Your task to perform on an android device: open device folders in google photos Image 0: 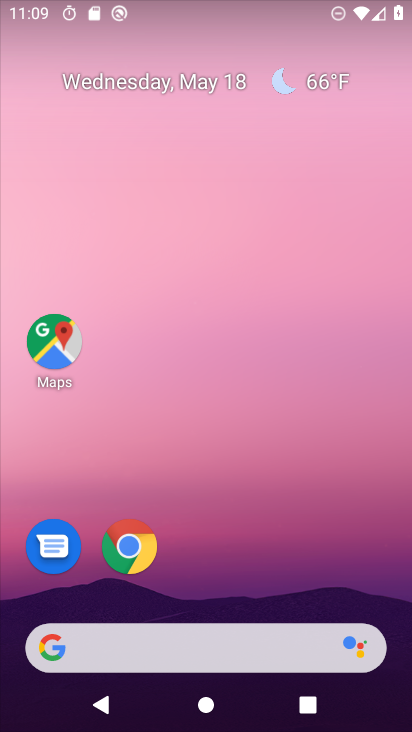
Step 0: drag from (227, 618) to (327, 82)
Your task to perform on an android device: open device folders in google photos Image 1: 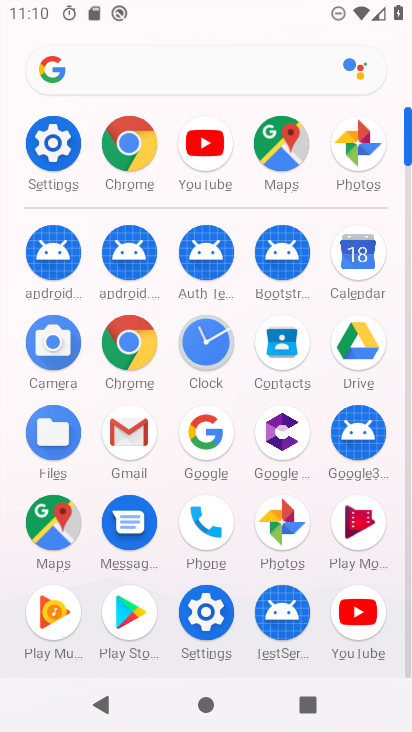
Step 1: click (344, 149)
Your task to perform on an android device: open device folders in google photos Image 2: 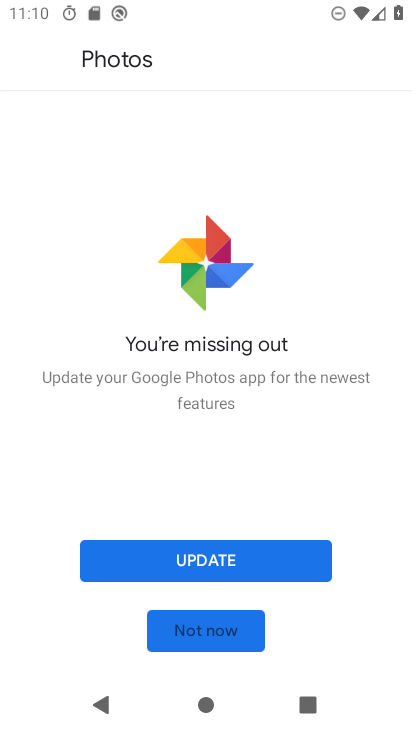
Step 2: click (201, 624)
Your task to perform on an android device: open device folders in google photos Image 3: 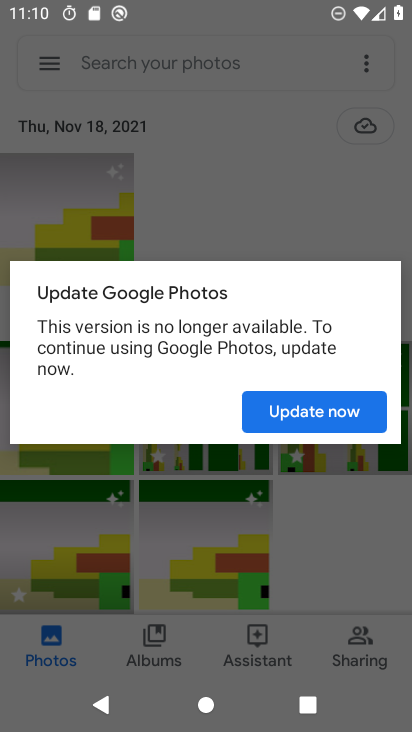
Step 3: click (289, 415)
Your task to perform on an android device: open device folders in google photos Image 4: 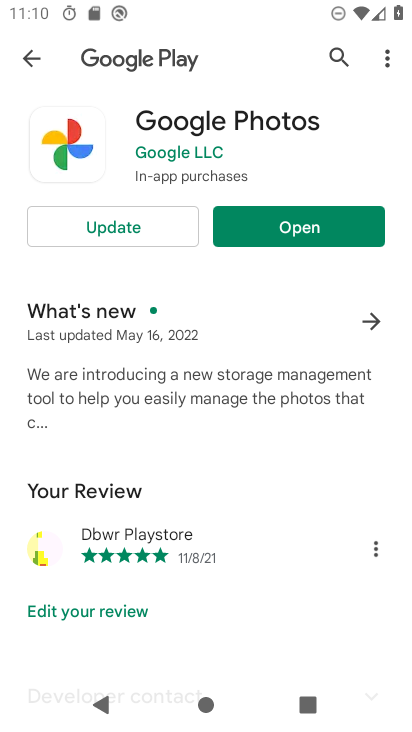
Step 4: click (322, 230)
Your task to perform on an android device: open device folders in google photos Image 5: 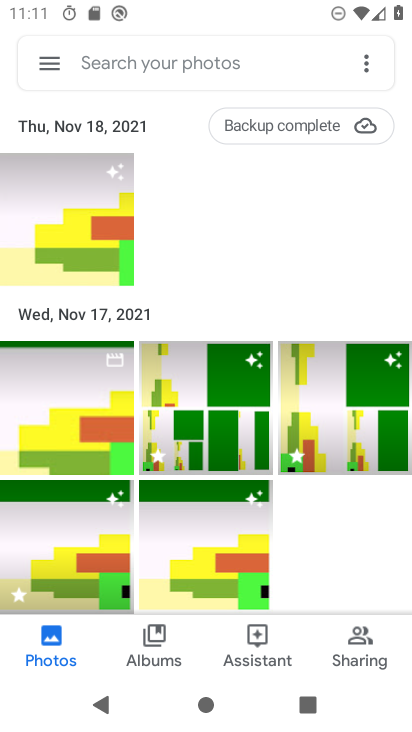
Step 5: click (61, 55)
Your task to perform on an android device: open device folders in google photos Image 6: 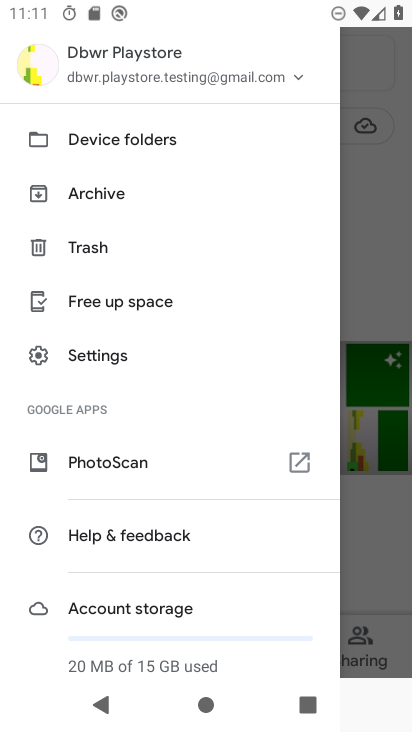
Step 6: click (122, 141)
Your task to perform on an android device: open device folders in google photos Image 7: 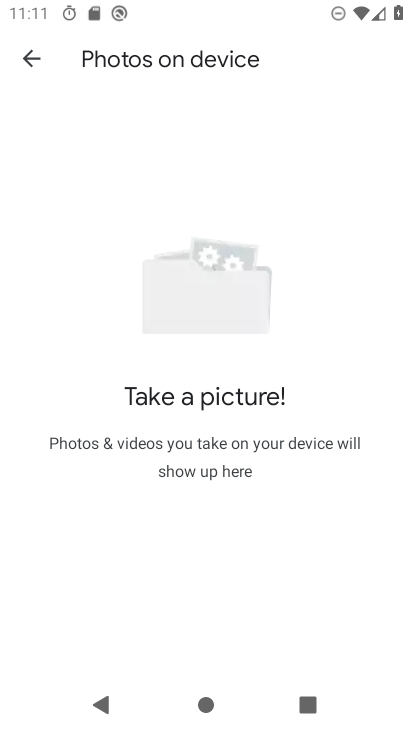
Step 7: task complete